Your task to perform on an android device: turn on wifi Image 0: 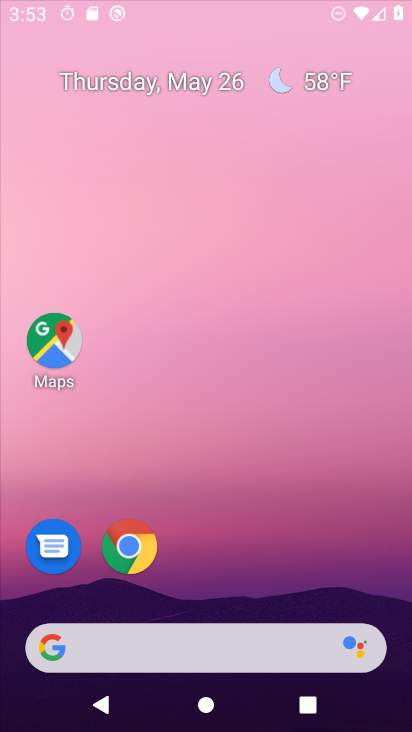
Step 0: press home button
Your task to perform on an android device: turn on wifi Image 1: 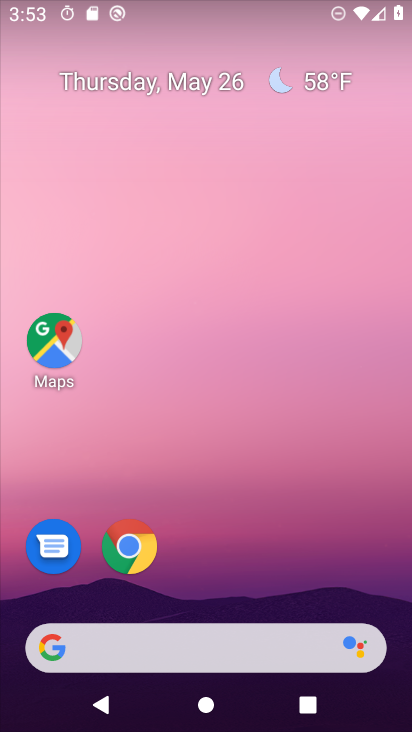
Step 1: drag from (213, 599) to (199, 149)
Your task to perform on an android device: turn on wifi Image 2: 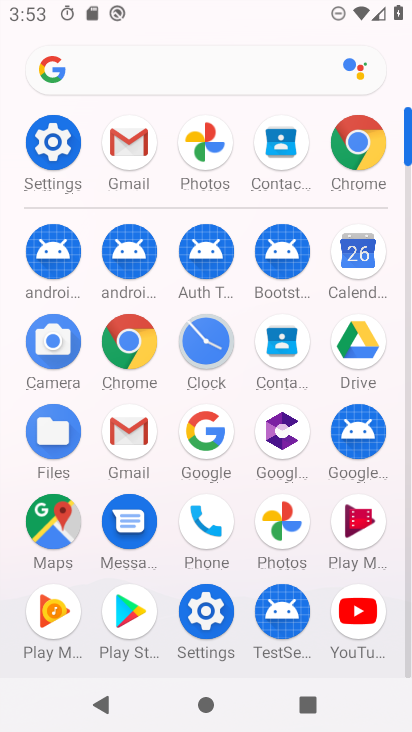
Step 2: click (77, 123)
Your task to perform on an android device: turn on wifi Image 3: 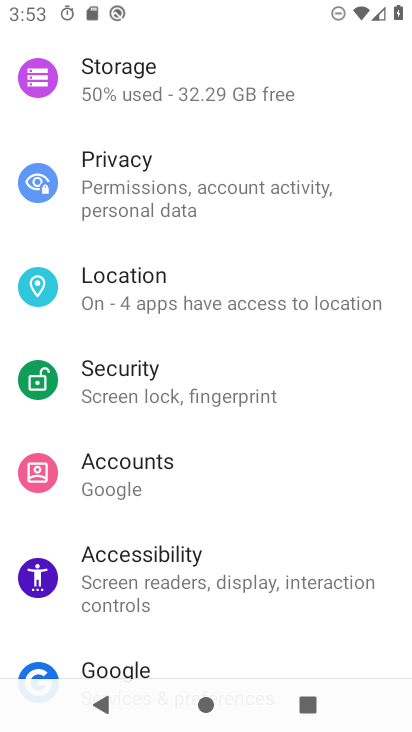
Step 3: drag from (169, 115) to (187, 564)
Your task to perform on an android device: turn on wifi Image 4: 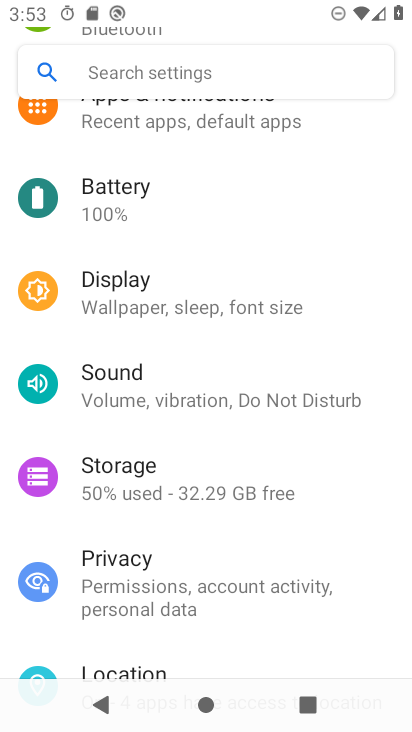
Step 4: drag from (175, 162) to (173, 594)
Your task to perform on an android device: turn on wifi Image 5: 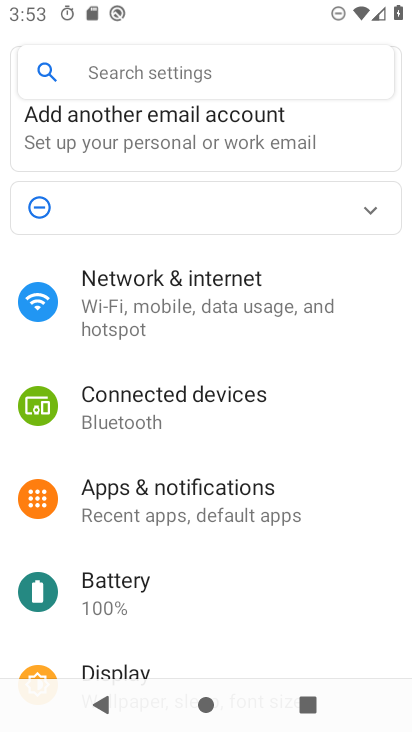
Step 5: click (153, 297)
Your task to perform on an android device: turn on wifi Image 6: 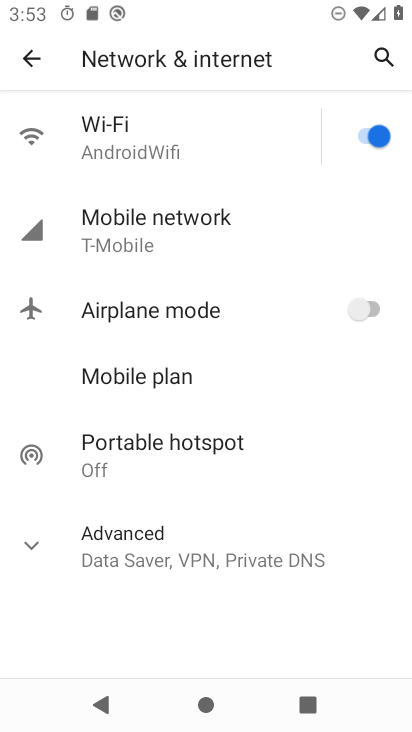
Step 6: click (186, 131)
Your task to perform on an android device: turn on wifi Image 7: 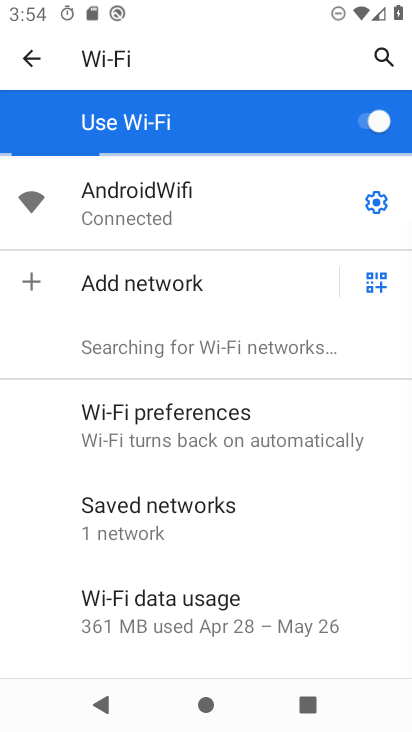
Step 7: task complete